Your task to perform on an android device: star an email in the gmail app Image 0: 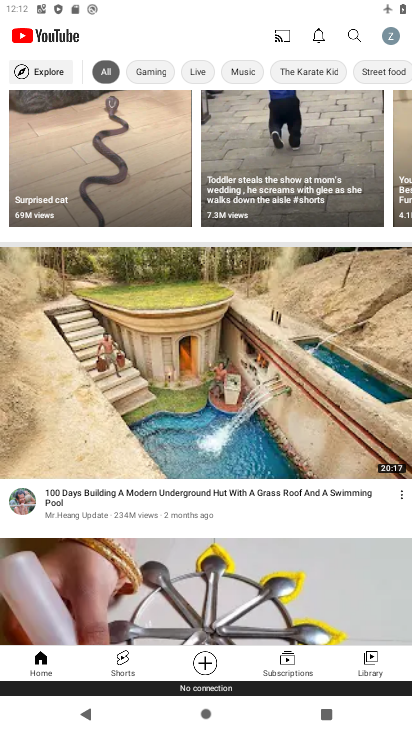
Step 0: press home button
Your task to perform on an android device: star an email in the gmail app Image 1: 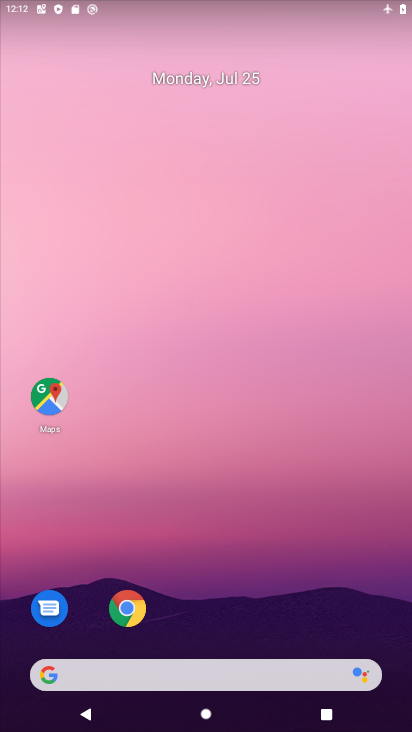
Step 1: drag from (212, 578) to (209, 11)
Your task to perform on an android device: star an email in the gmail app Image 2: 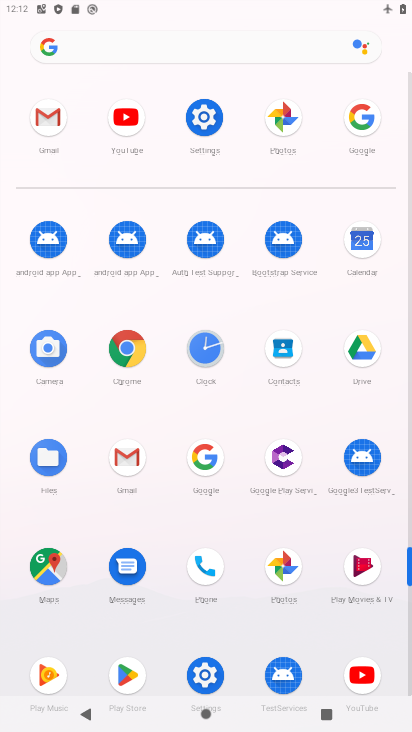
Step 2: click (43, 133)
Your task to perform on an android device: star an email in the gmail app Image 3: 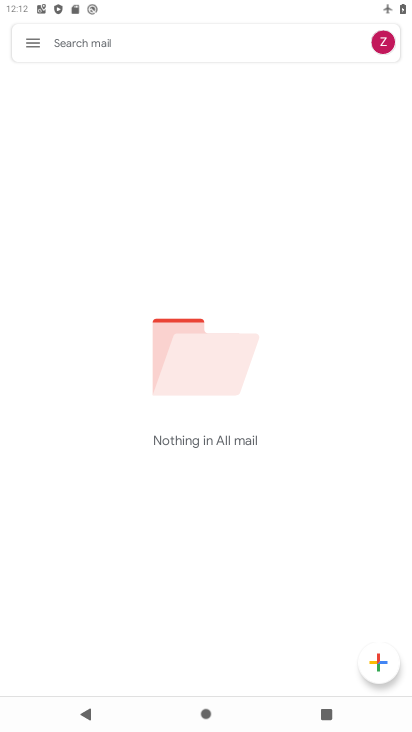
Step 3: click (24, 48)
Your task to perform on an android device: star an email in the gmail app Image 4: 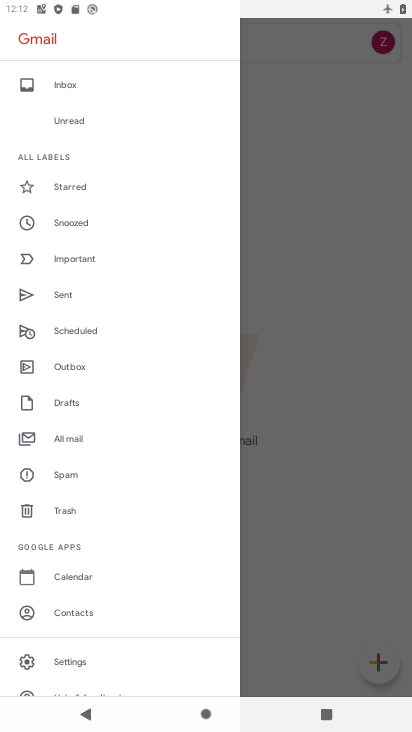
Step 4: task complete